Your task to perform on an android device: Go to location settings Image 0: 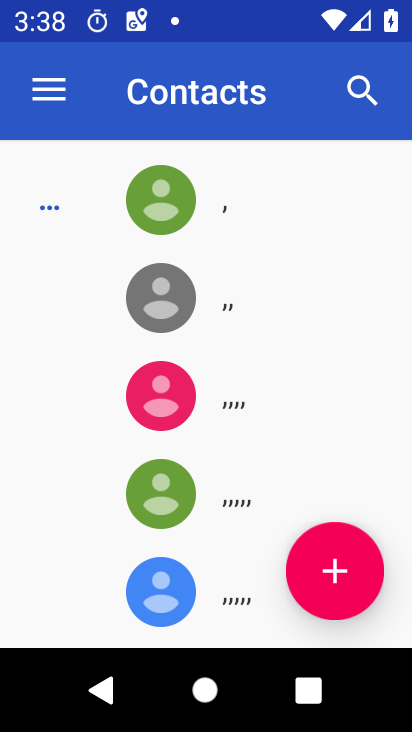
Step 0: press home button
Your task to perform on an android device: Go to location settings Image 1: 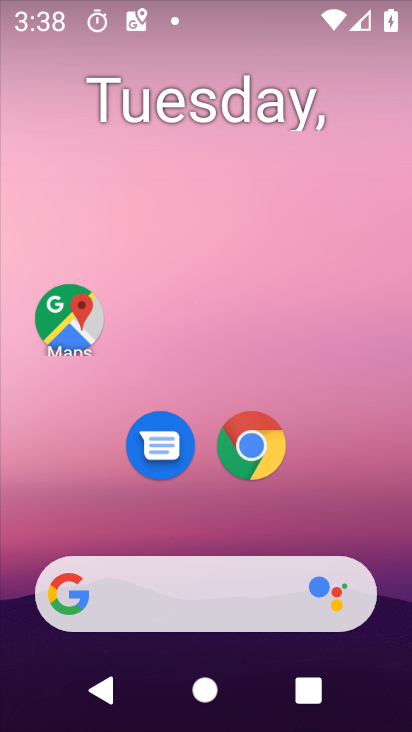
Step 1: drag from (200, 512) to (110, 19)
Your task to perform on an android device: Go to location settings Image 2: 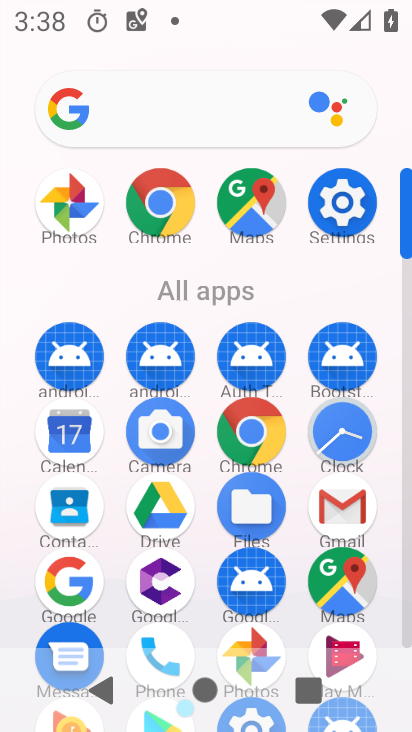
Step 2: click (324, 212)
Your task to perform on an android device: Go to location settings Image 3: 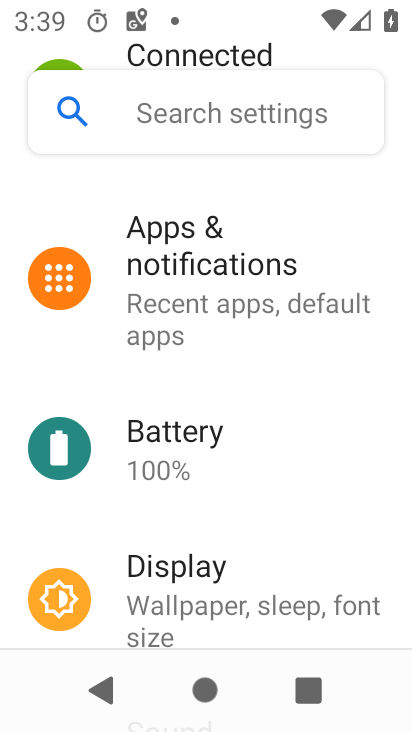
Step 3: drag from (315, 465) to (294, 16)
Your task to perform on an android device: Go to location settings Image 4: 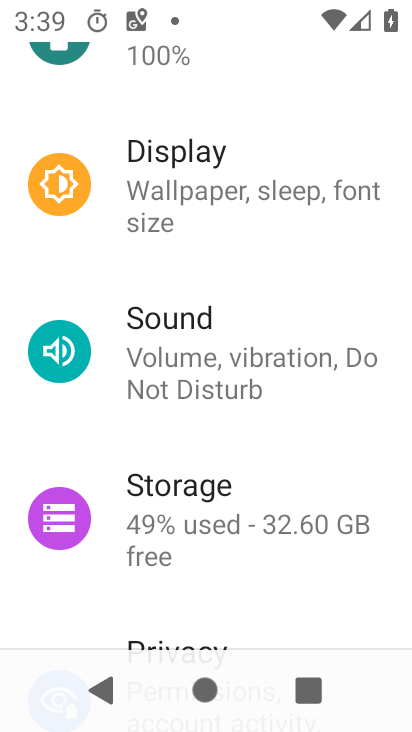
Step 4: drag from (265, 320) to (229, 713)
Your task to perform on an android device: Go to location settings Image 5: 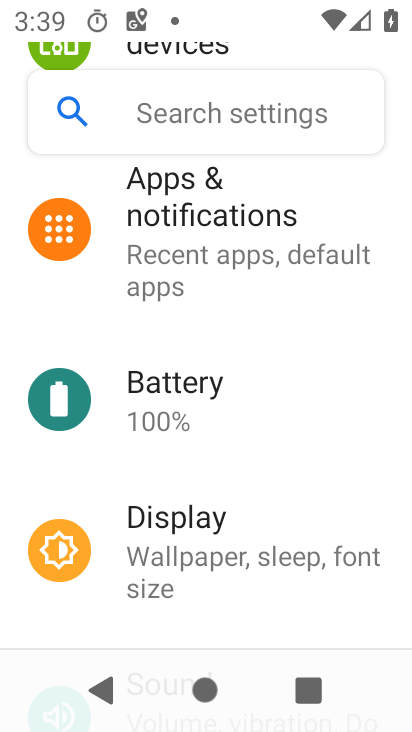
Step 5: drag from (256, 220) to (251, 565)
Your task to perform on an android device: Go to location settings Image 6: 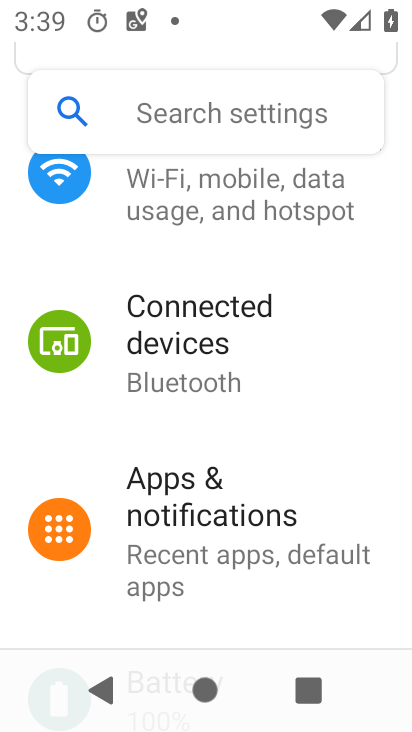
Step 6: drag from (193, 422) to (246, 143)
Your task to perform on an android device: Go to location settings Image 7: 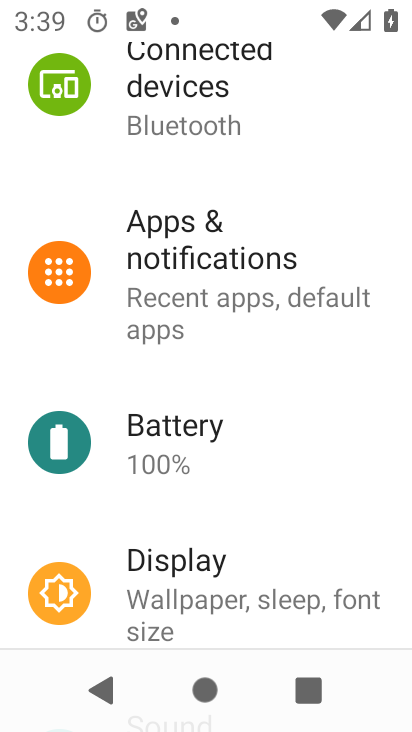
Step 7: drag from (60, 460) to (66, 66)
Your task to perform on an android device: Go to location settings Image 8: 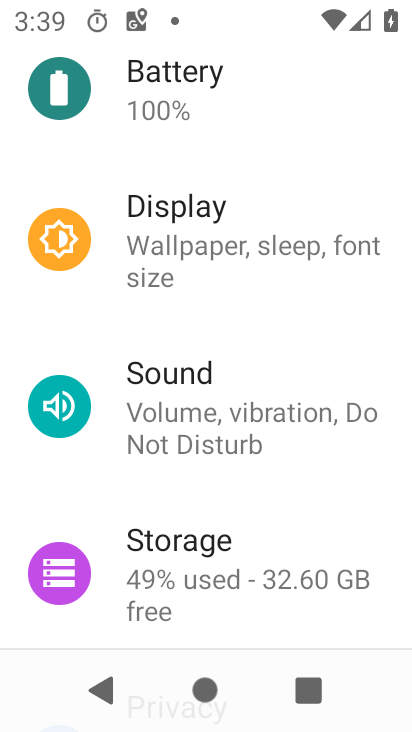
Step 8: drag from (110, 422) to (144, 2)
Your task to perform on an android device: Go to location settings Image 9: 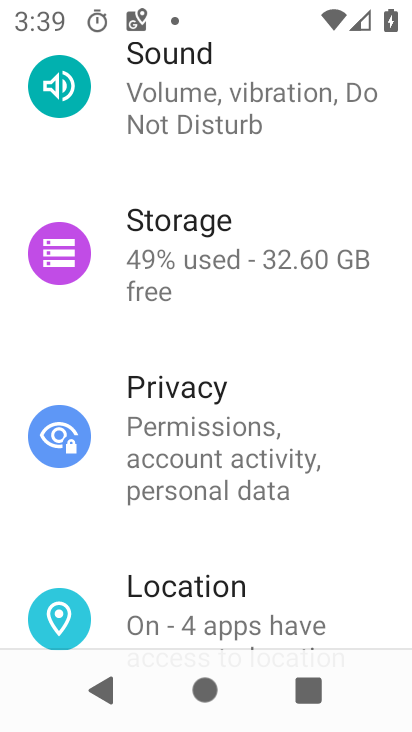
Step 9: click (237, 587)
Your task to perform on an android device: Go to location settings Image 10: 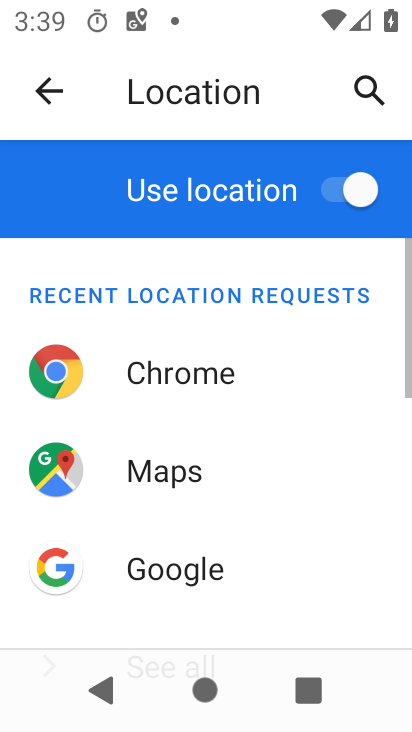
Step 10: task complete